Your task to perform on an android device: change timer sound Image 0: 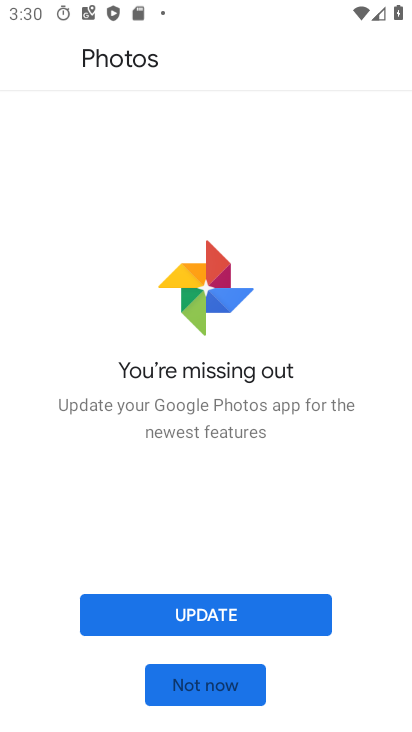
Step 0: press home button
Your task to perform on an android device: change timer sound Image 1: 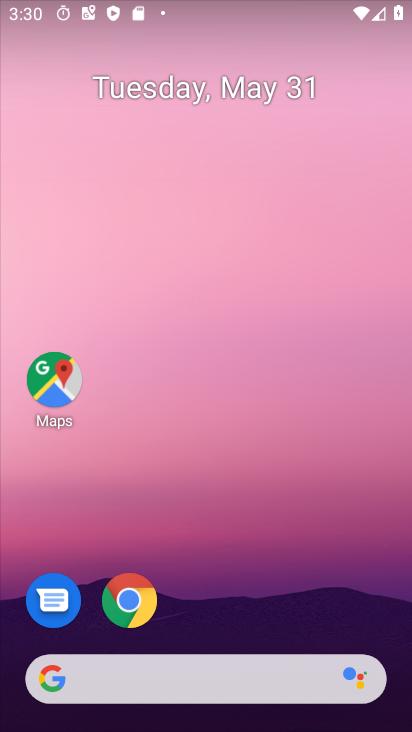
Step 1: drag from (224, 573) to (225, 204)
Your task to perform on an android device: change timer sound Image 2: 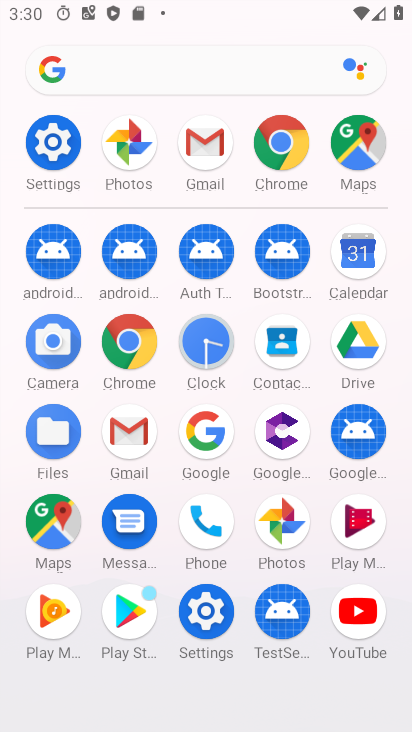
Step 2: click (203, 331)
Your task to perform on an android device: change timer sound Image 3: 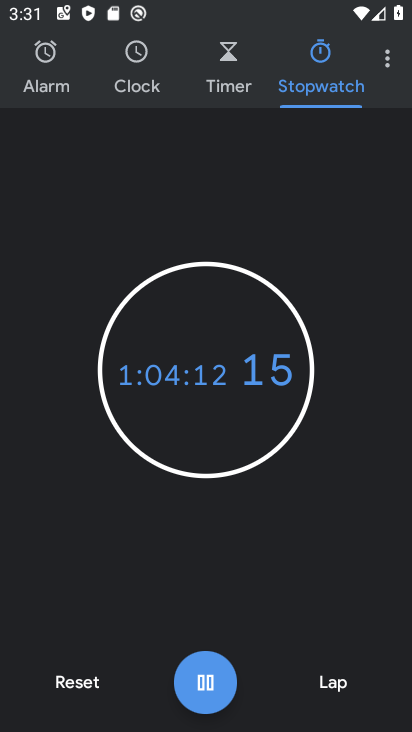
Step 3: click (53, 692)
Your task to perform on an android device: change timer sound Image 4: 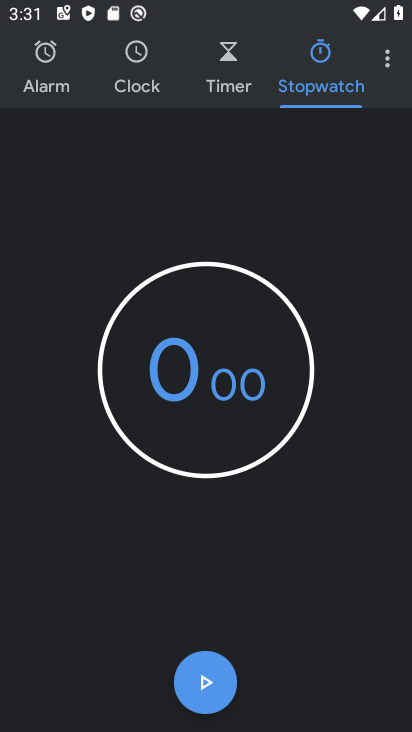
Step 4: click (385, 58)
Your task to perform on an android device: change timer sound Image 5: 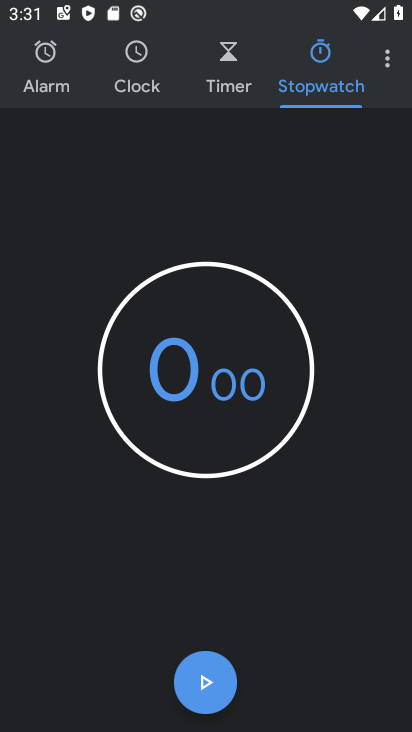
Step 5: click (384, 59)
Your task to perform on an android device: change timer sound Image 6: 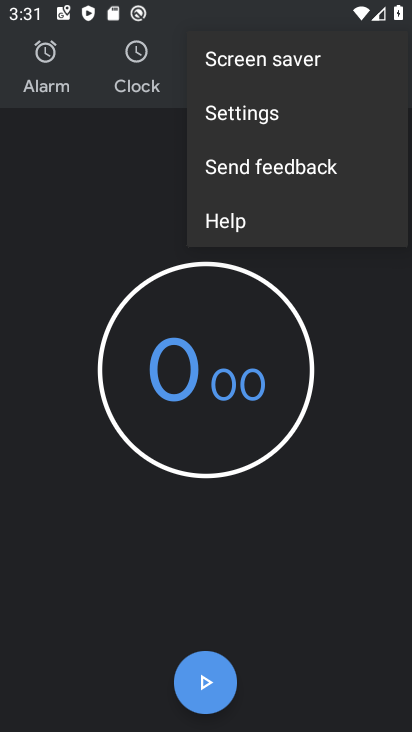
Step 6: click (265, 114)
Your task to perform on an android device: change timer sound Image 7: 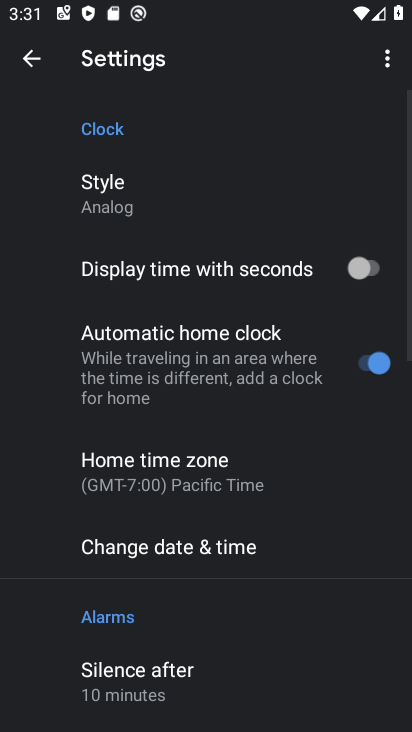
Step 7: drag from (238, 670) to (244, 87)
Your task to perform on an android device: change timer sound Image 8: 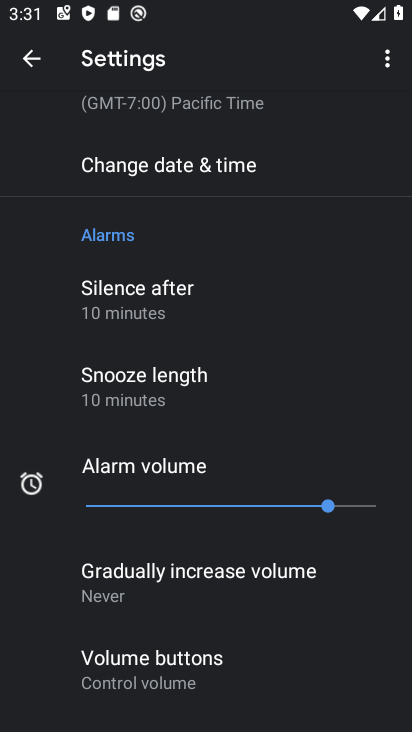
Step 8: drag from (234, 673) to (237, 158)
Your task to perform on an android device: change timer sound Image 9: 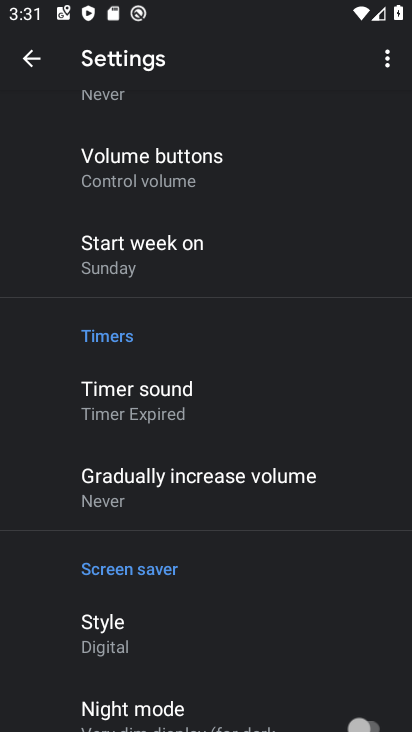
Step 9: click (205, 412)
Your task to perform on an android device: change timer sound Image 10: 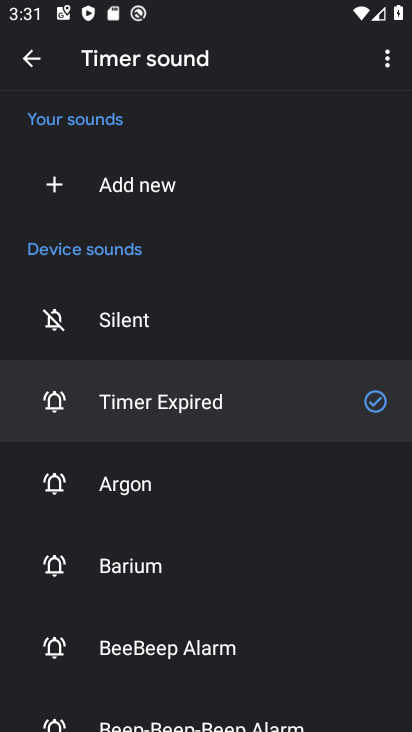
Step 10: click (203, 578)
Your task to perform on an android device: change timer sound Image 11: 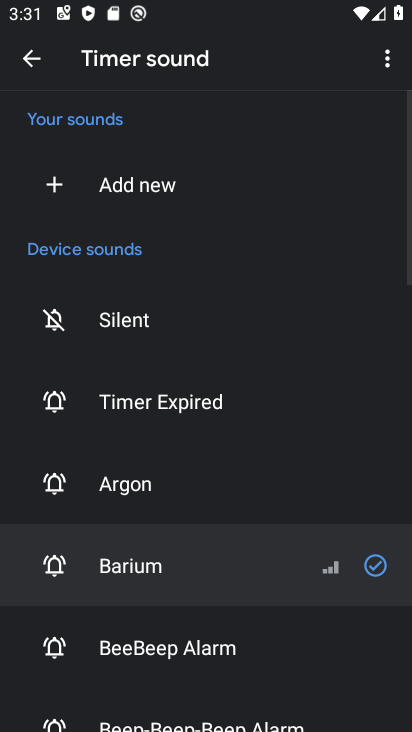
Step 11: task complete